Your task to perform on an android device: turn off translation in the chrome app Image 0: 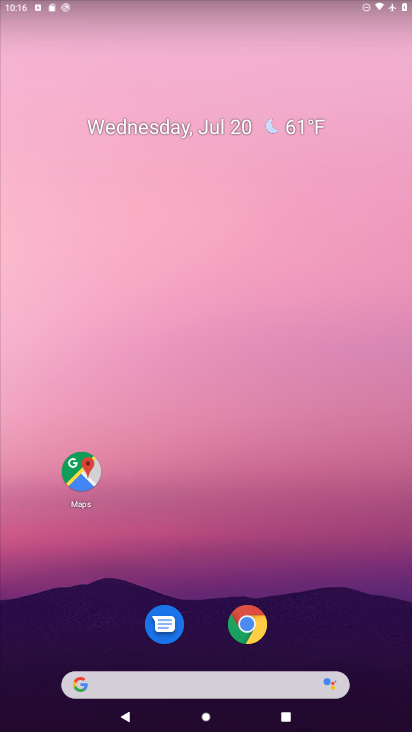
Step 0: click (241, 607)
Your task to perform on an android device: turn off translation in the chrome app Image 1: 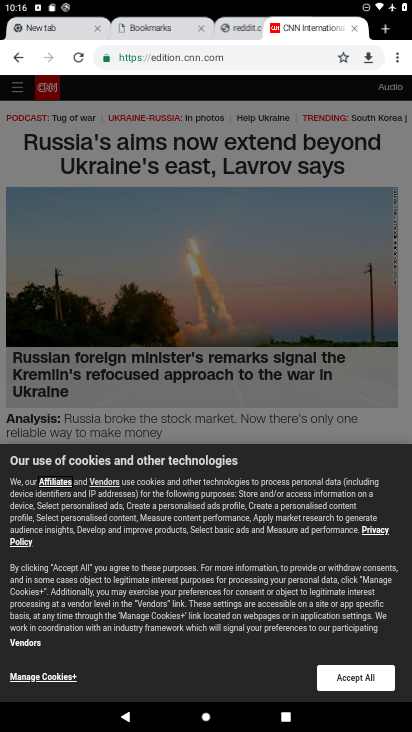
Step 1: click (398, 52)
Your task to perform on an android device: turn off translation in the chrome app Image 2: 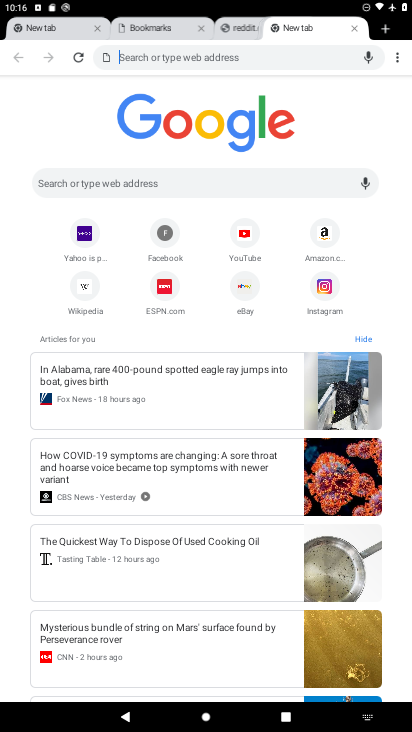
Step 2: click (390, 50)
Your task to perform on an android device: turn off translation in the chrome app Image 3: 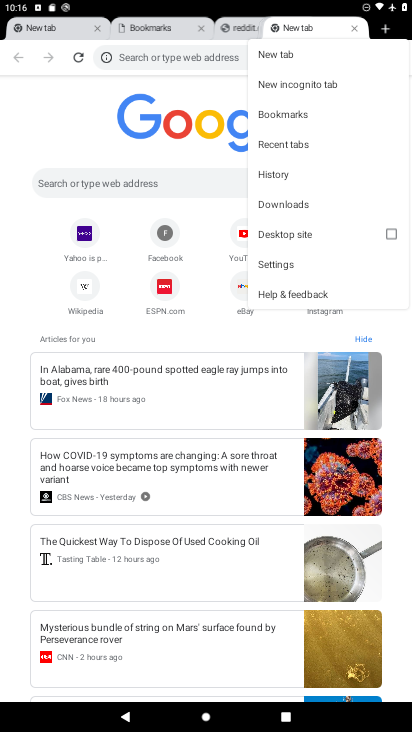
Step 3: click (286, 257)
Your task to perform on an android device: turn off translation in the chrome app Image 4: 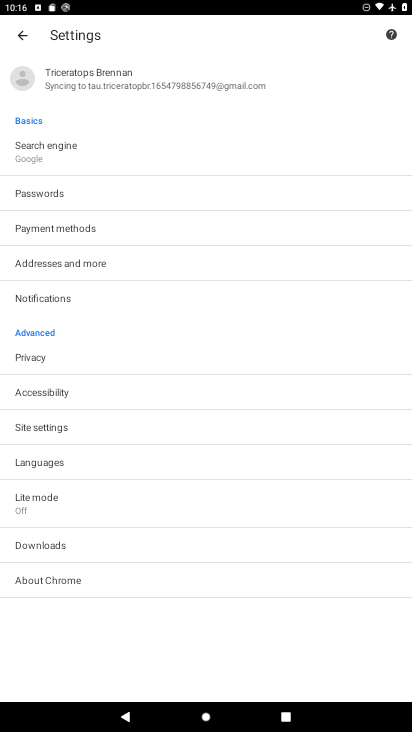
Step 4: click (38, 454)
Your task to perform on an android device: turn off translation in the chrome app Image 5: 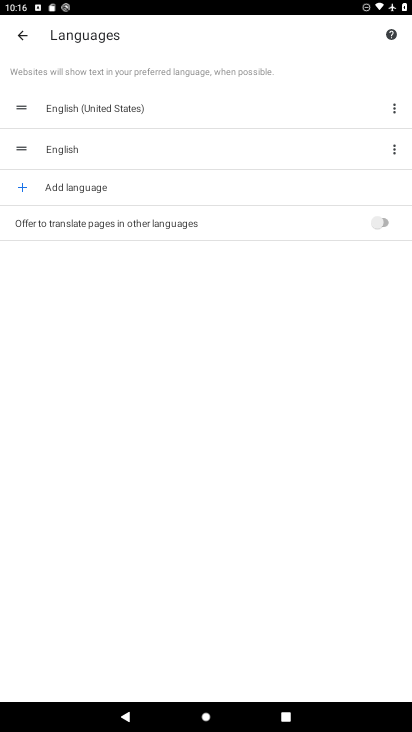
Step 5: task complete